Your task to perform on an android device: Open calendar and show me the first week of next month Image 0: 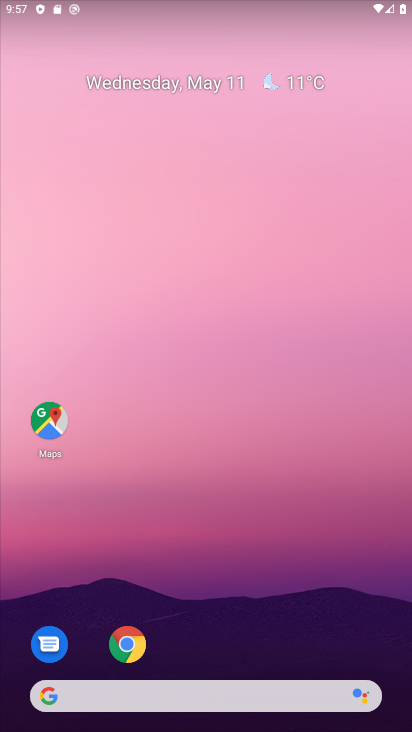
Step 0: drag from (363, 630) to (342, 5)
Your task to perform on an android device: Open calendar and show me the first week of next month Image 1: 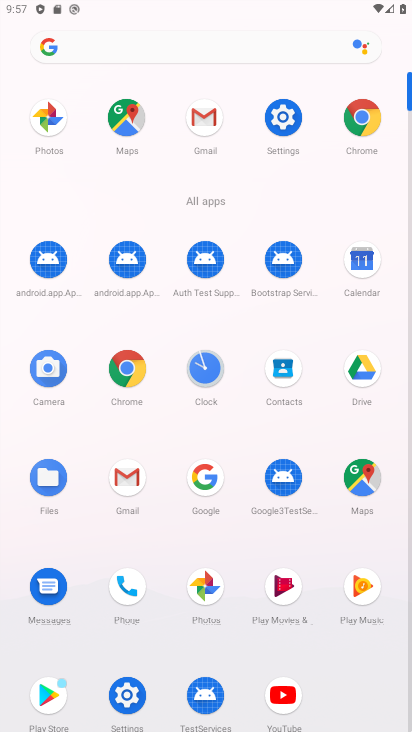
Step 1: click (356, 268)
Your task to perform on an android device: Open calendar and show me the first week of next month Image 2: 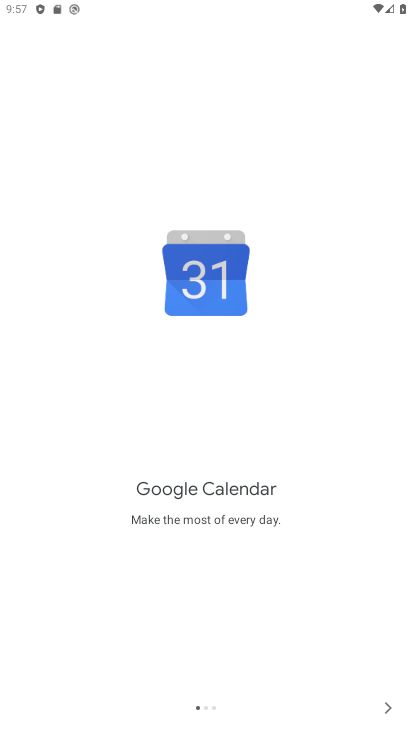
Step 2: click (382, 707)
Your task to perform on an android device: Open calendar and show me the first week of next month Image 3: 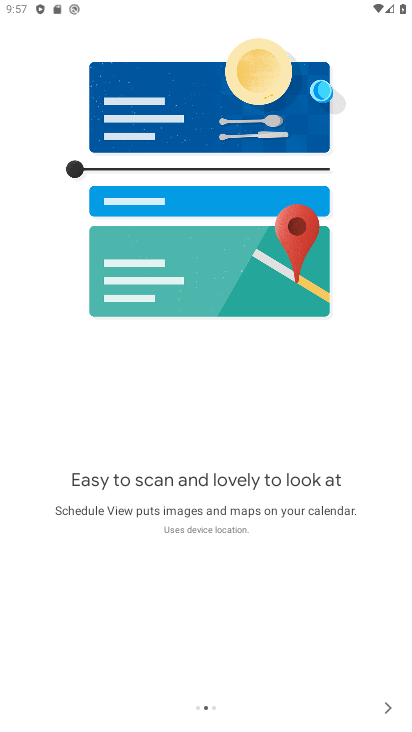
Step 3: click (385, 706)
Your task to perform on an android device: Open calendar and show me the first week of next month Image 4: 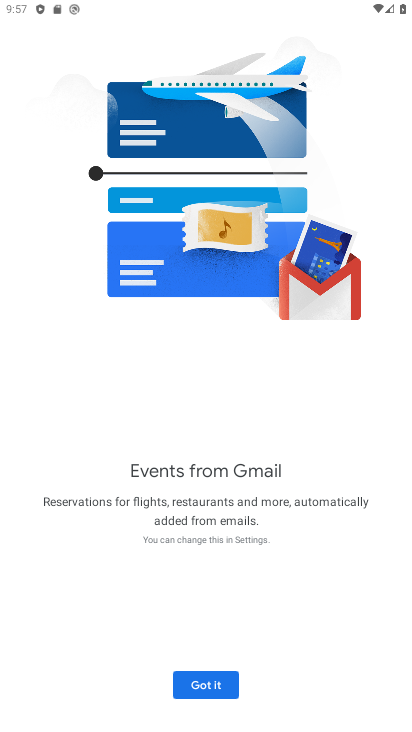
Step 4: click (192, 682)
Your task to perform on an android device: Open calendar and show me the first week of next month Image 5: 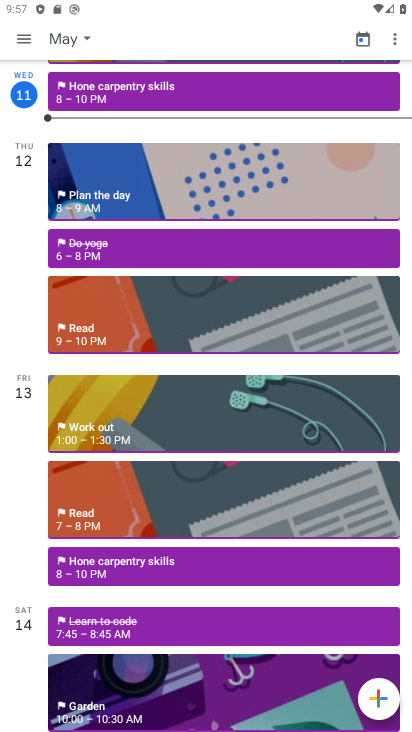
Step 5: click (88, 43)
Your task to perform on an android device: Open calendar and show me the first week of next month Image 6: 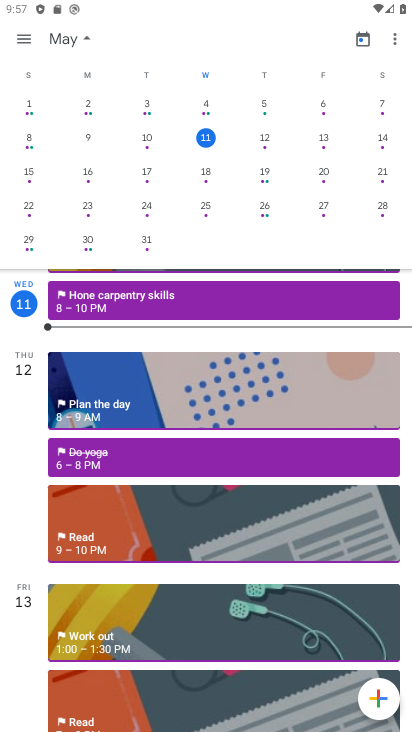
Step 6: drag from (287, 200) to (10, 156)
Your task to perform on an android device: Open calendar and show me the first week of next month Image 7: 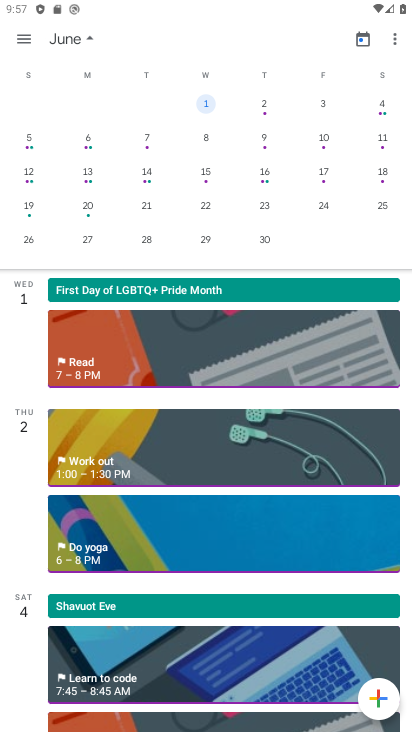
Step 7: click (16, 41)
Your task to perform on an android device: Open calendar and show me the first week of next month Image 8: 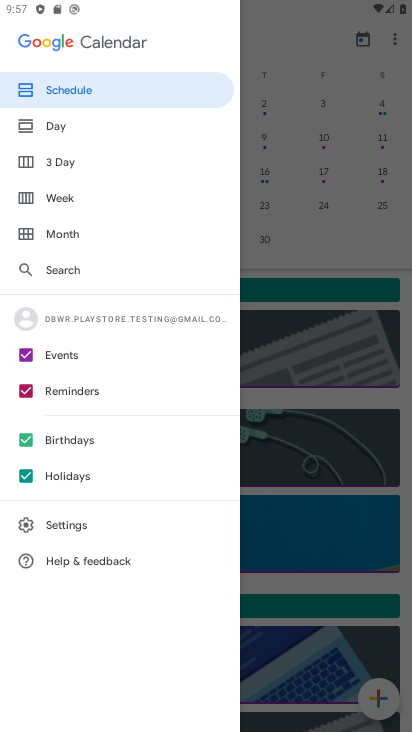
Step 8: click (58, 204)
Your task to perform on an android device: Open calendar and show me the first week of next month Image 9: 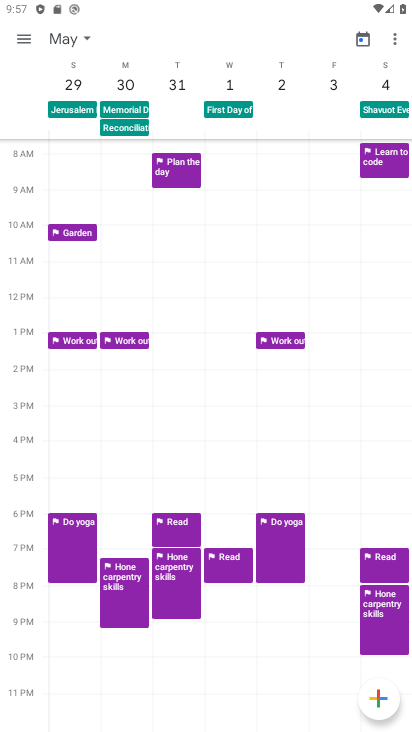
Step 9: task complete